Your task to perform on an android device: empty trash in google photos Image 0: 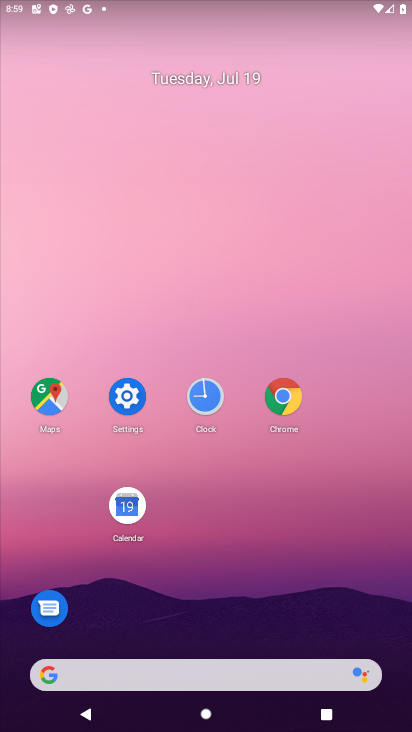
Step 0: drag from (394, 697) to (284, 131)
Your task to perform on an android device: empty trash in google photos Image 1: 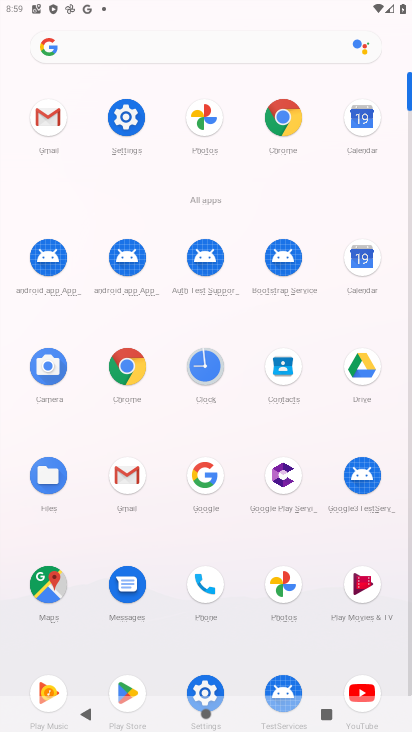
Step 1: click (279, 580)
Your task to perform on an android device: empty trash in google photos Image 2: 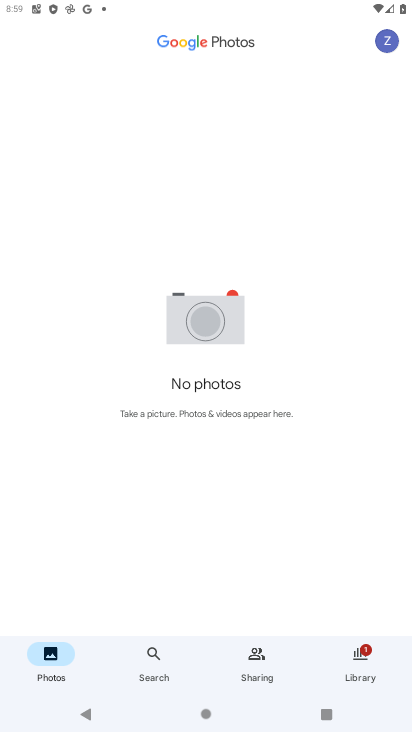
Step 2: task complete